Your task to perform on an android device: toggle notifications settings in the gmail app Image 0: 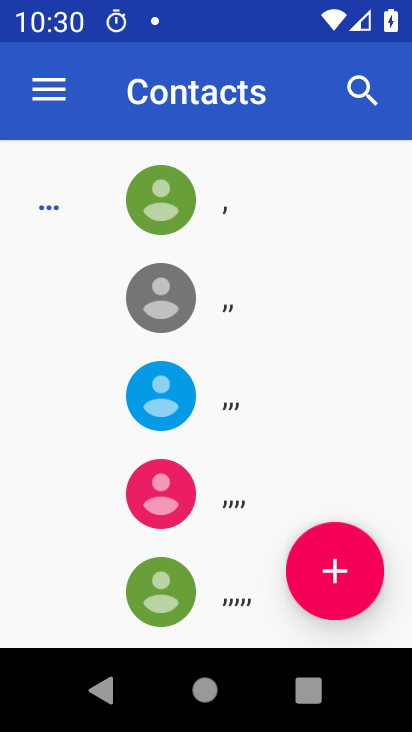
Step 0: press back button
Your task to perform on an android device: toggle notifications settings in the gmail app Image 1: 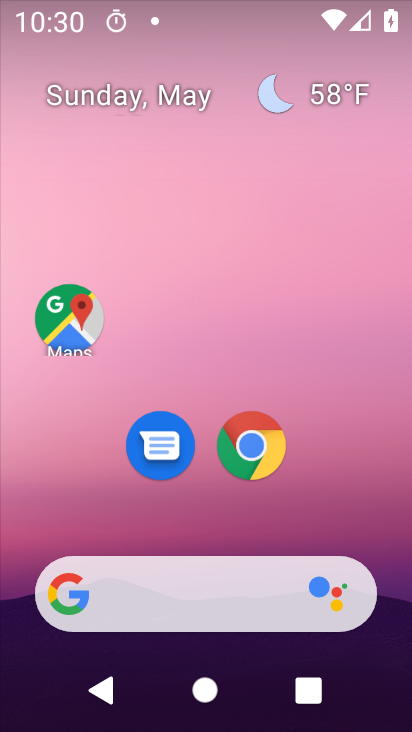
Step 1: drag from (347, 500) to (255, 36)
Your task to perform on an android device: toggle notifications settings in the gmail app Image 2: 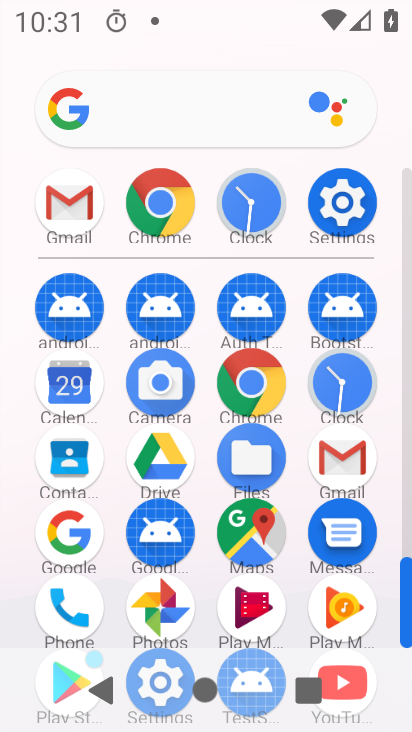
Step 2: drag from (2, 473) to (14, 167)
Your task to perform on an android device: toggle notifications settings in the gmail app Image 3: 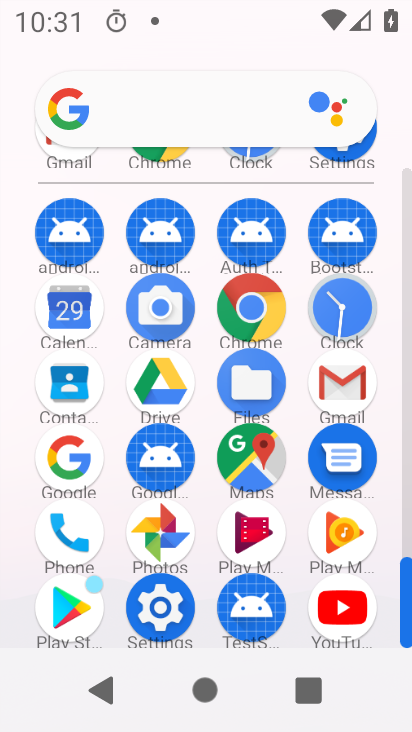
Step 3: click (351, 376)
Your task to perform on an android device: toggle notifications settings in the gmail app Image 4: 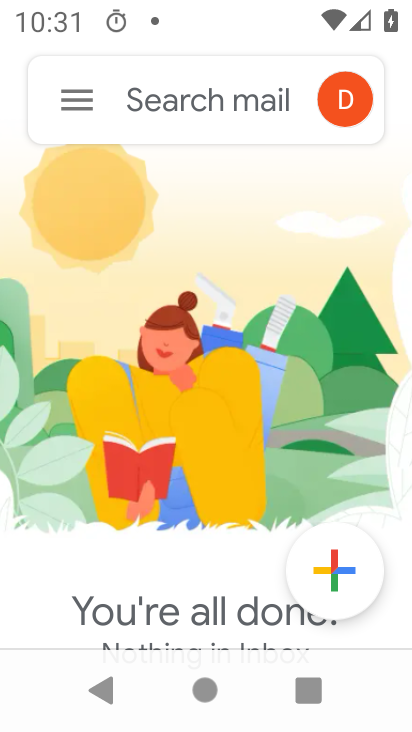
Step 4: click (77, 105)
Your task to perform on an android device: toggle notifications settings in the gmail app Image 5: 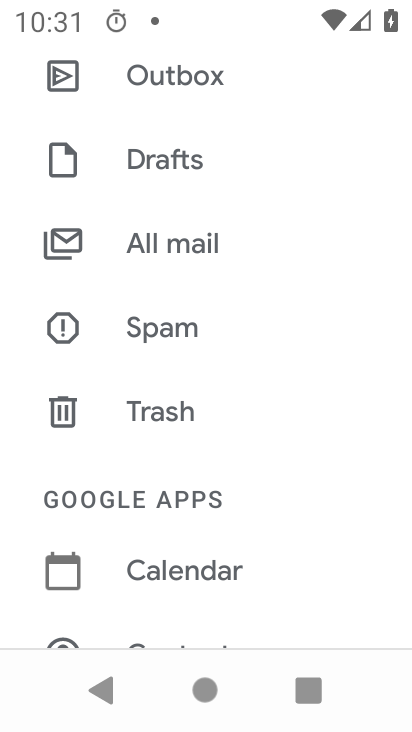
Step 5: drag from (269, 630) to (266, 185)
Your task to perform on an android device: toggle notifications settings in the gmail app Image 6: 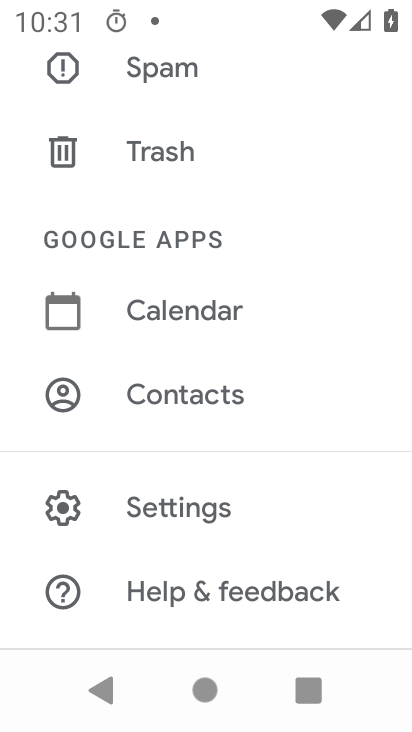
Step 6: click (190, 489)
Your task to perform on an android device: toggle notifications settings in the gmail app Image 7: 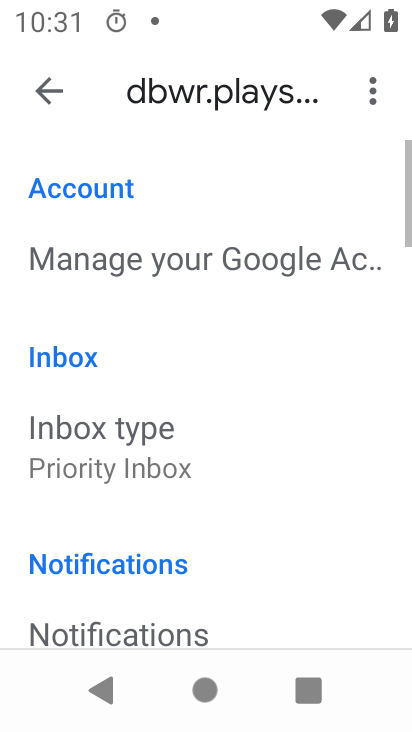
Step 7: drag from (190, 488) to (214, 161)
Your task to perform on an android device: toggle notifications settings in the gmail app Image 8: 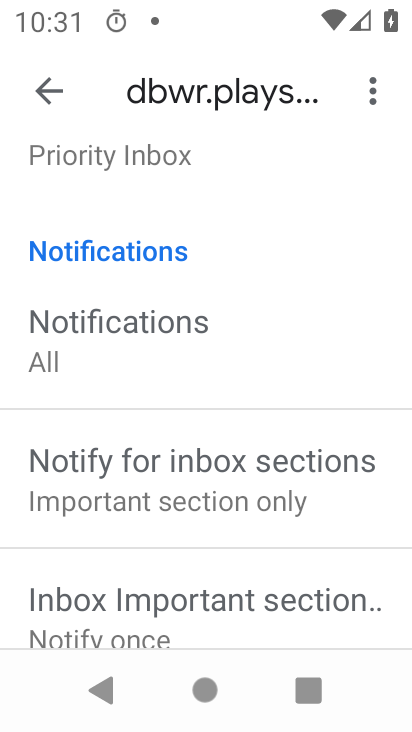
Step 8: drag from (265, 528) to (267, 186)
Your task to perform on an android device: toggle notifications settings in the gmail app Image 9: 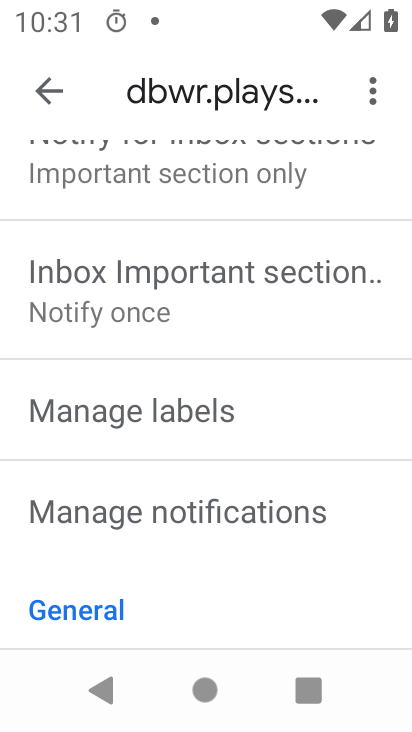
Step 9: click (215, 518)
Your task to perform on an android device: toggle notifications settings in the gmail app Image 10: 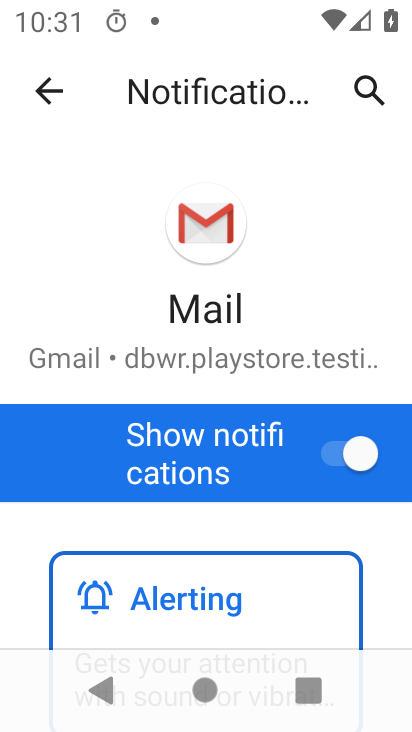
Step 10: click (333, 460)
Your task to perform on an android device: toggle notifications settings in the gmail app Image 11: 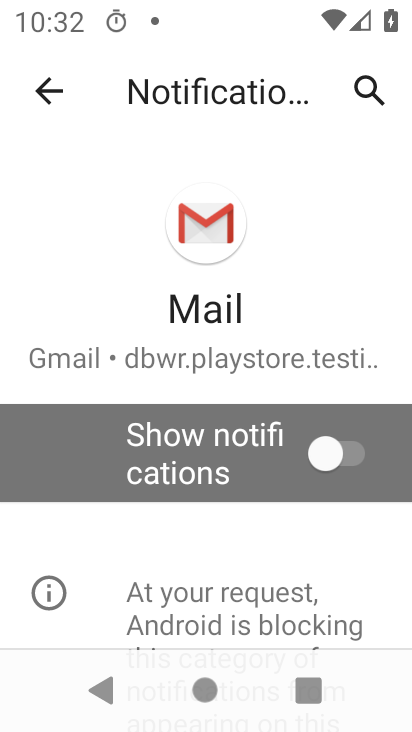
Step 11: drag from (227, 517) to (214, 152)
Your task to perform on an android device: toggle notifications settings in the gmail app Image 12: 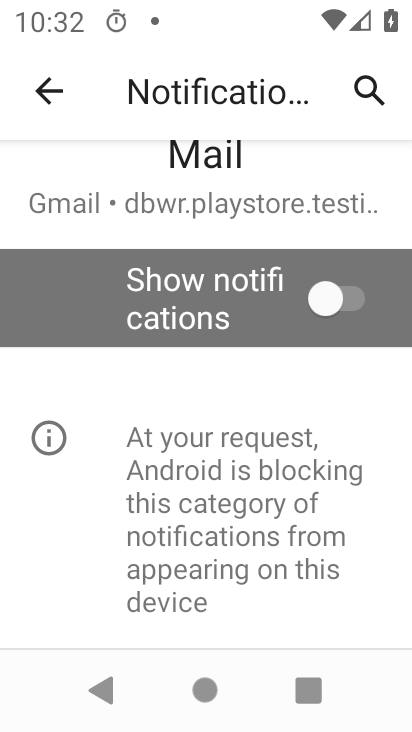
Step 12: click (336, 311)
Your task to perform on an android device: toggle notifications settings in the gmail app Image 13: 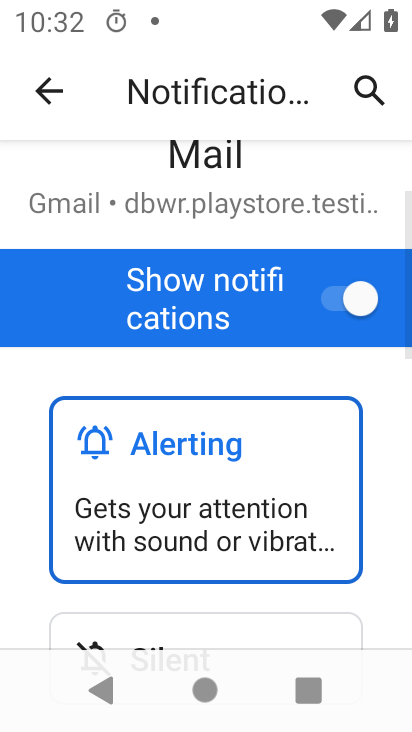
Step 13: task complete